Your task to perform on an android device: toggle priority inbox in the gmail app Image 0: 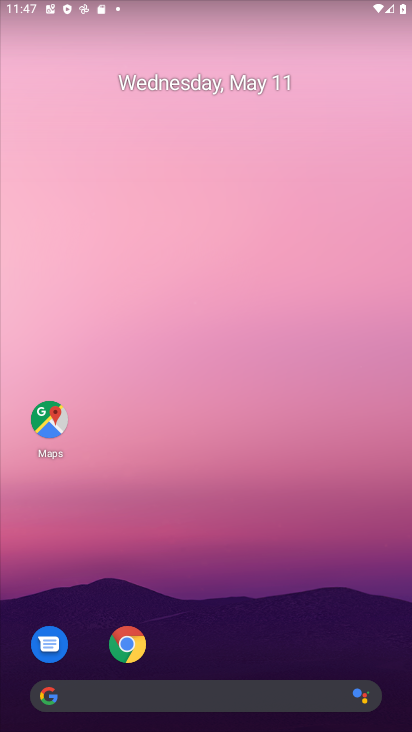
Step 0: drag from (293, 593) to (278, 242)
Your task to perform on an android device: toggle priority inbox in the gmail app Image 1: 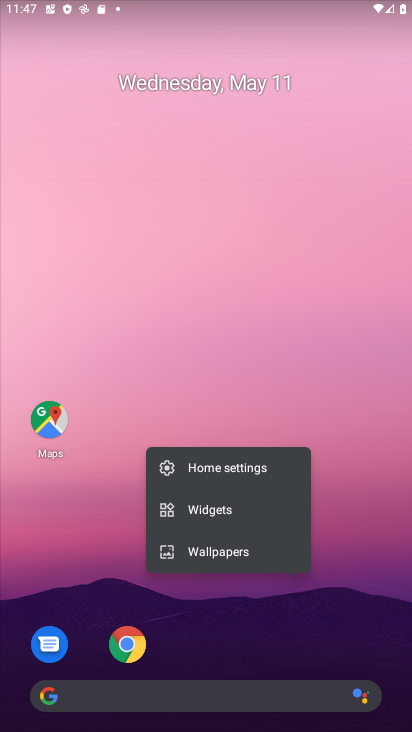
Step 1: click (363, 590)
Your task to perform on an android device: toggle priority inbox in the gmail app Image 2: 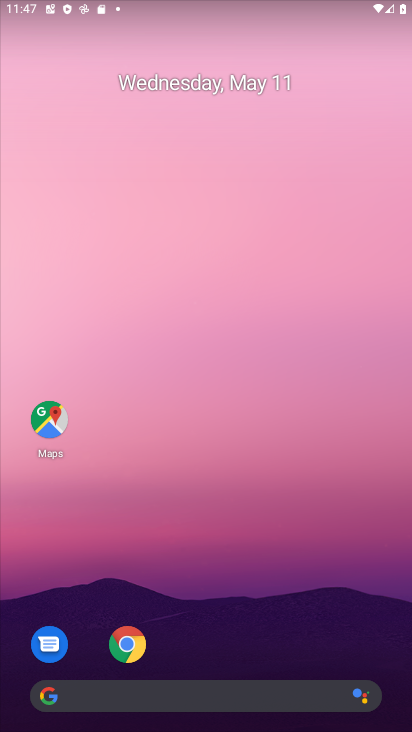
Step 2: drag from (297, 628) to (244, 383)
Your task to perform on an android device: toggle priority inbox in the gmail app Image 3: 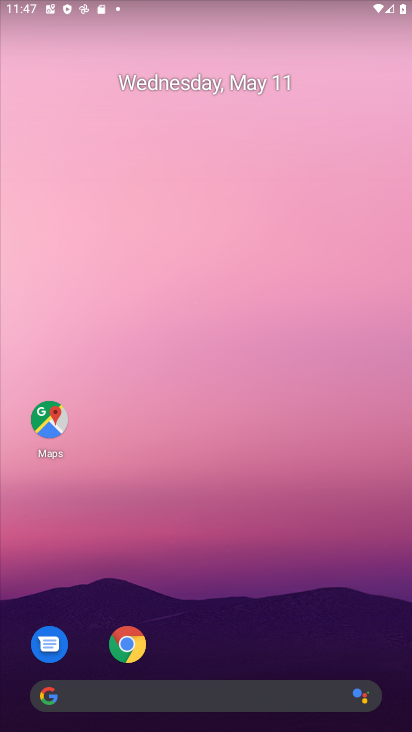
Step 3: drag from (249, 596) to (232, 179)
Your task to perform on an android device: toggle priority inbox in the gmail app Image 4: 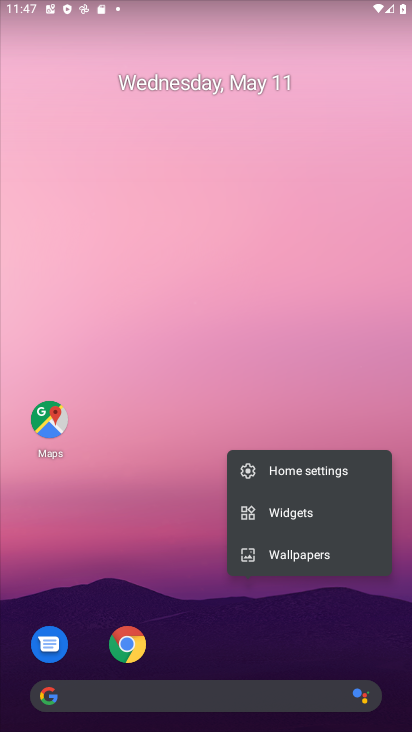
Step 4: click (170, 553)
Your task to perform on an android device: toggle priority inbox in the gmail app Image 5: 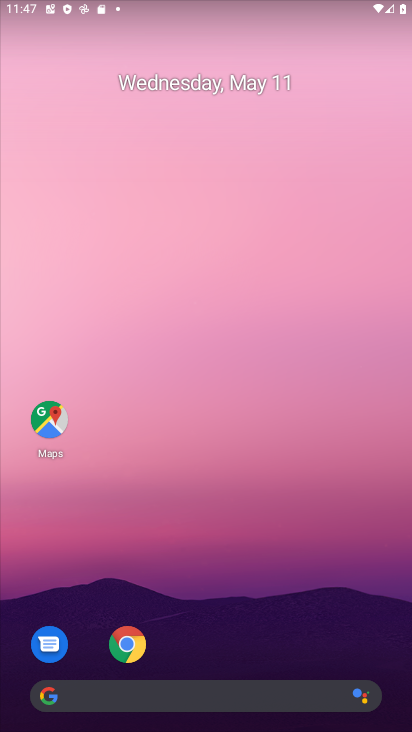
Step 5: drag from (225, 603) to (195, 215)
Your task to perform on an android device: toggle priority inbox in the gmail app Image 6: 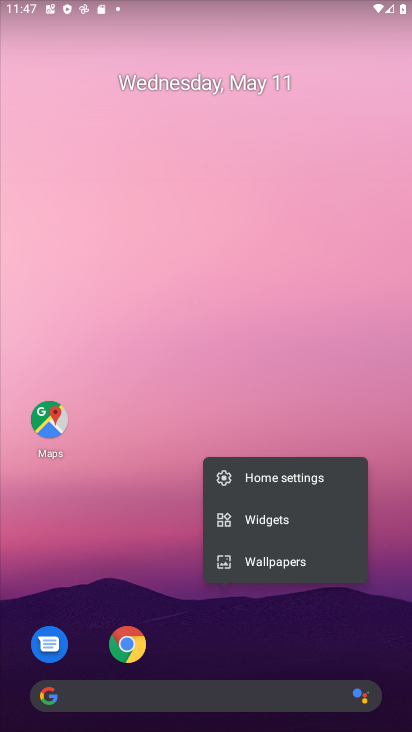
Step 6: click (154, 614)
Your task to perform on an android device: toggle priority inbox in the gmail app Image 7: 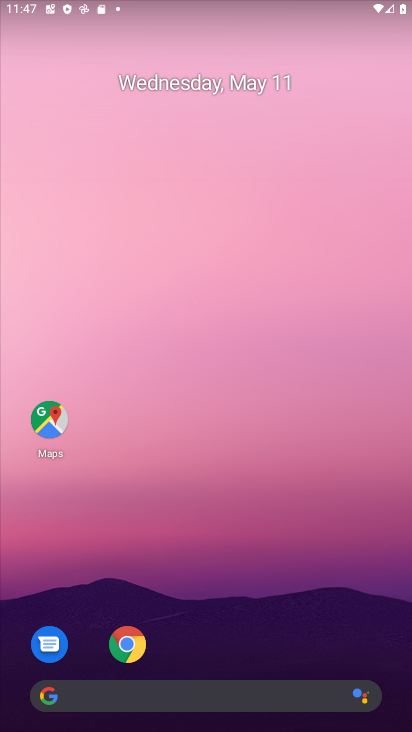
Step 7: drag from (200, 648) to (211, 116)
Your task to perform on an android device: toggle priority inbox in the gmail app Image 8: 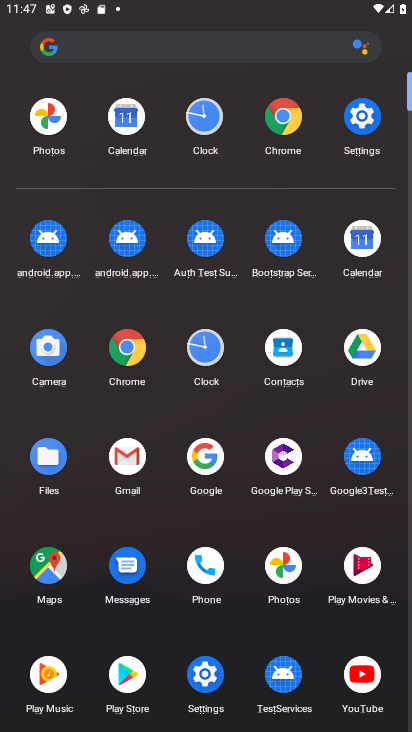
Step 8: click (132, 456)
Your task to perform on an android device: toggle priority inbox in the gmail app Image 9: 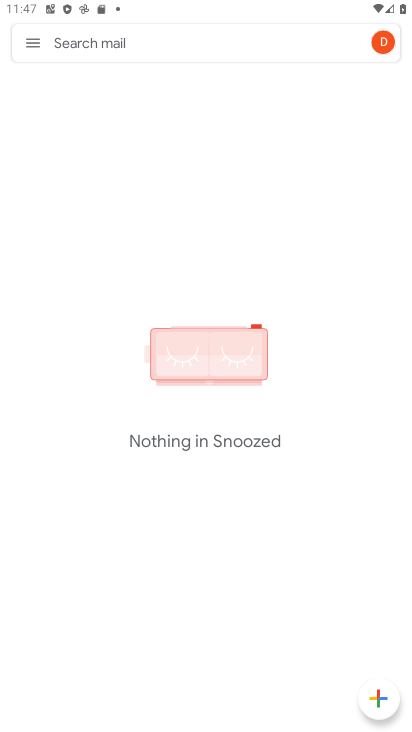
Step 9: click (37, 38)
Your task to perform on an android device: toggle priority inbox in the gmail app Image 10: 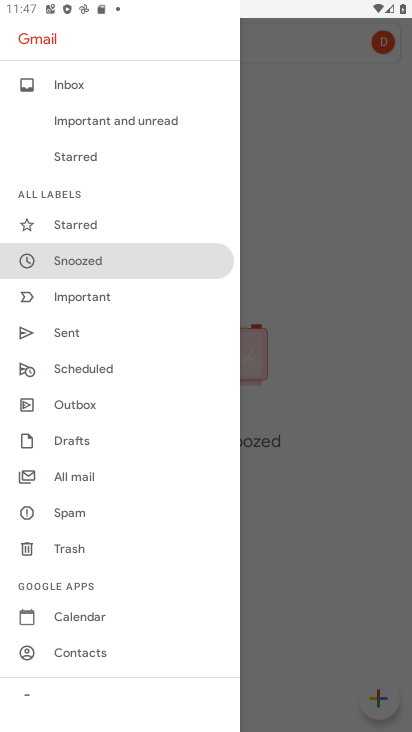
Step 10: drag from (96, 617) to (105, 488)
Your task to perform on an android device: toggle priority inbox in the gmail app Image 11: 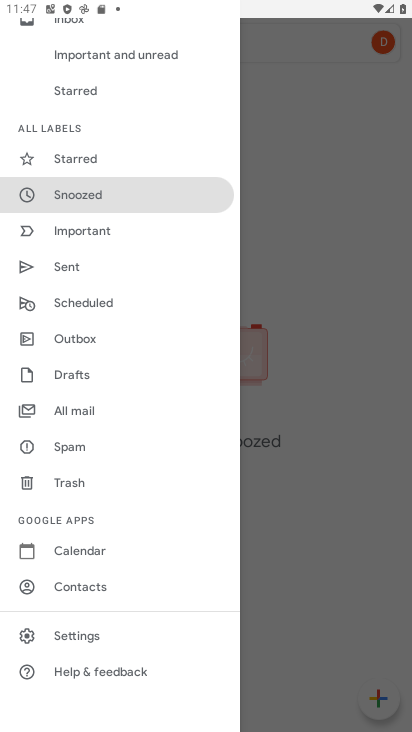
Step 11: click (118, 620)
Your task to perform on an android device: toggle priority inbox in the gmail app Image 12: 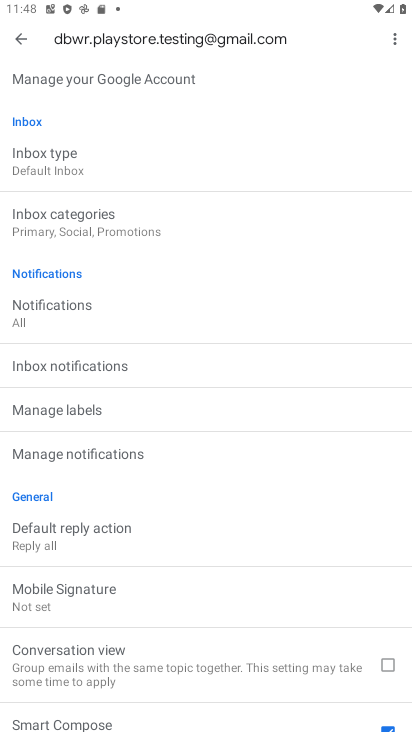
Step 12: task complete